Your task to perform on an android device: Toggle the flashlight Image 0: 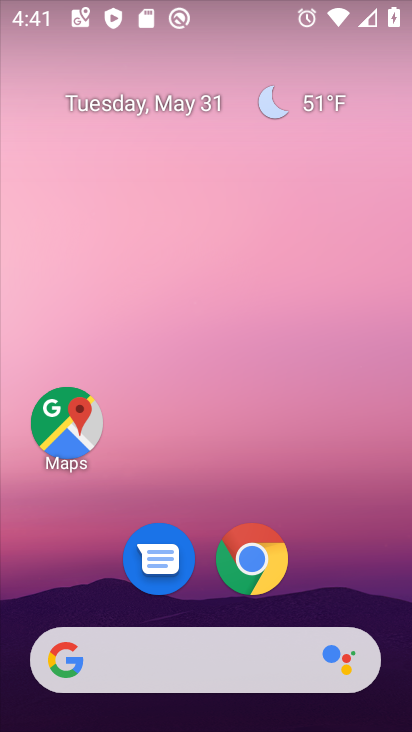
Step 0: drag from (341, 558) to (388, 15)
Your task to perform on an android device: Toggle the flashlight Image 1: 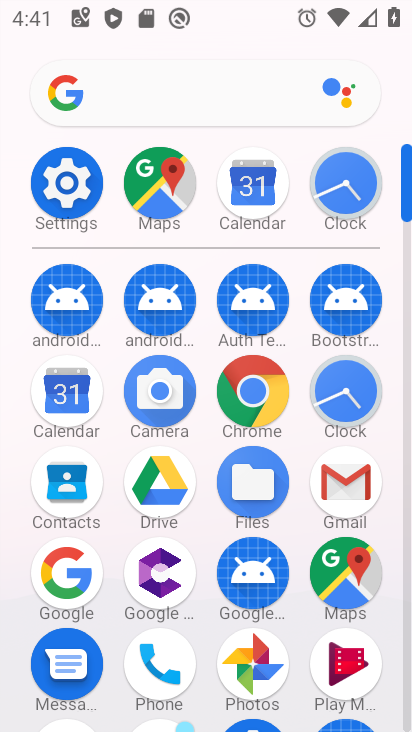
Step 1: click (79, 176)
Your task to perform on an android device: Toggle the flashlight Image 2: 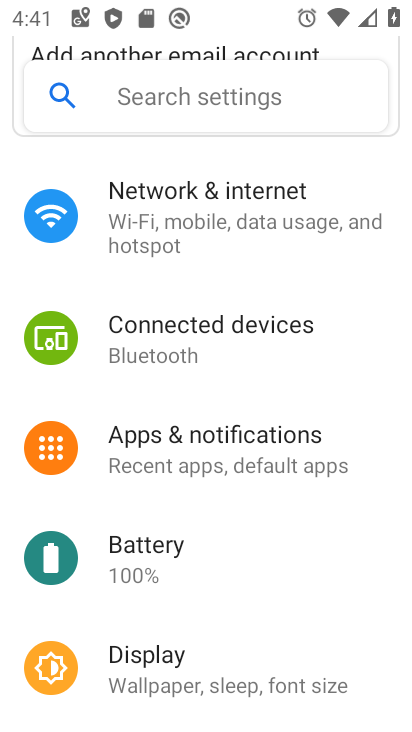
Step 2: task complete